Your task to perform on an android device: What's on my calendar today? Image 0: 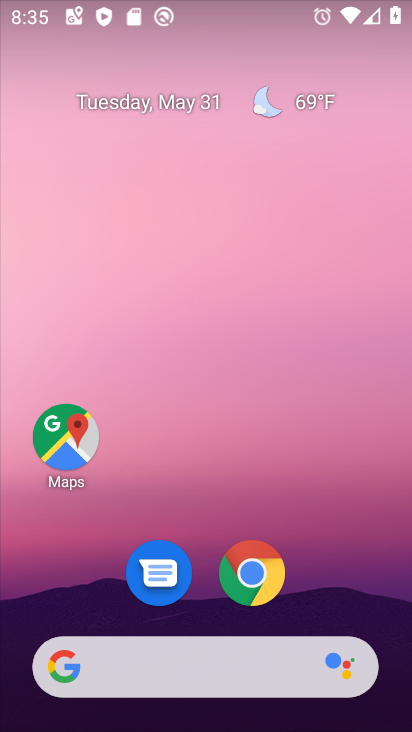
Step 0: drag from (210, 530) to (261, 116)
Your task to perform on an android device: What's on my calendar today? Image 1: 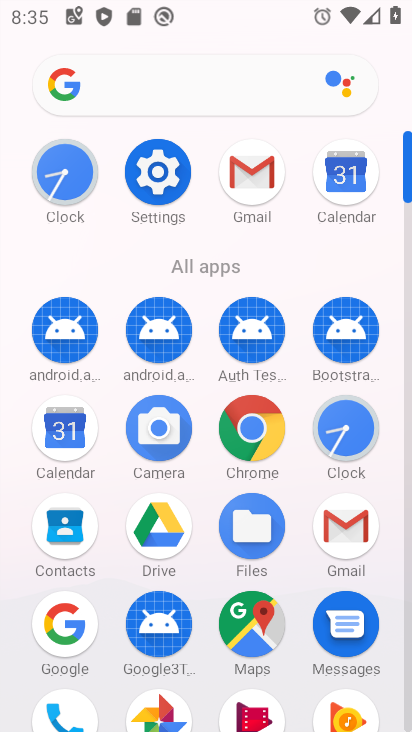
Step 1: click (346, 207)
Your task to perform on an android device: What's on my calendar today? Image 2: 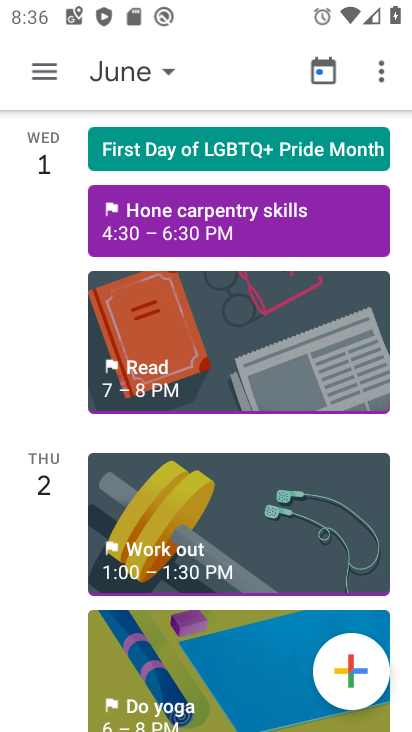
Step 2: task complete